Your task to perform on an android device: change the clock style Image 0: 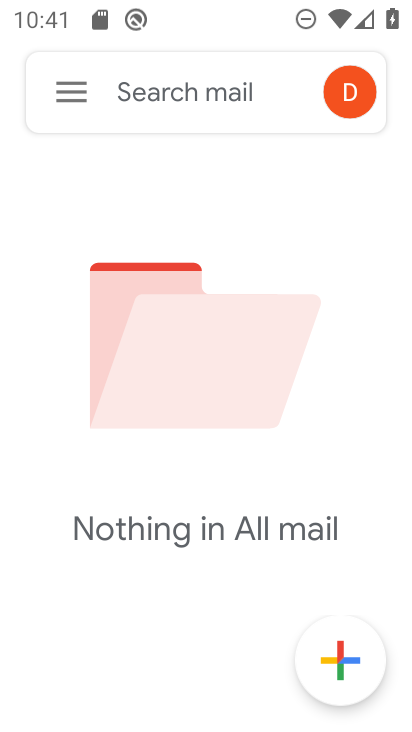
Step 0: press home button
Your task to perform on an android device: change the clock style Image 1: 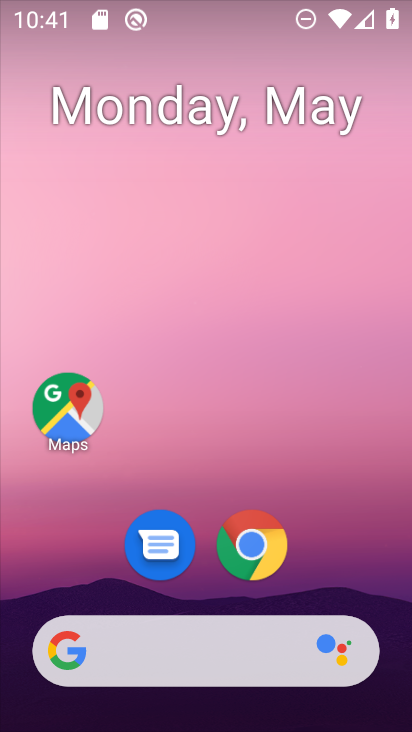
Step 1: drag from (368, 546) to (207, 27)
Your task to perform on an android device: change the clock style Image 2: 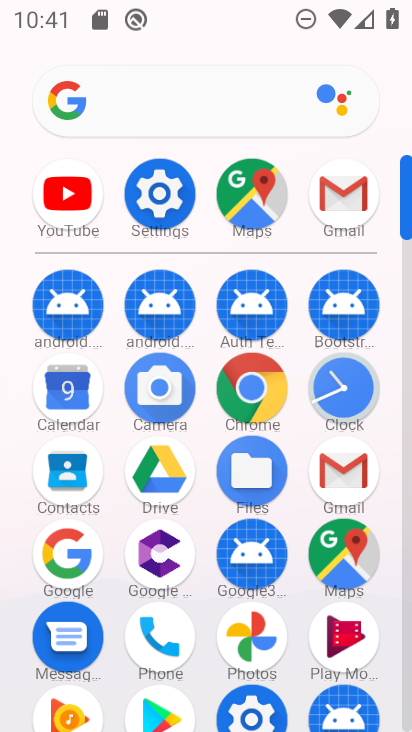
Step 2: click (349, 401)
Your task to perform on an android device: change the clock style Image 3: 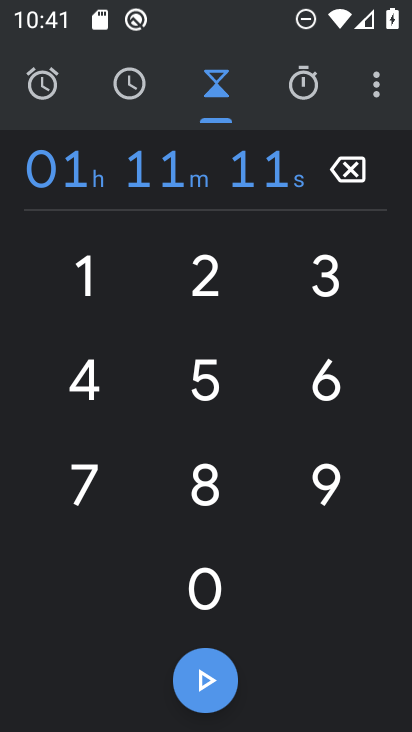
Step 3: click (373, 87)
Your task to perform on an android device: change the clock style Image 4: 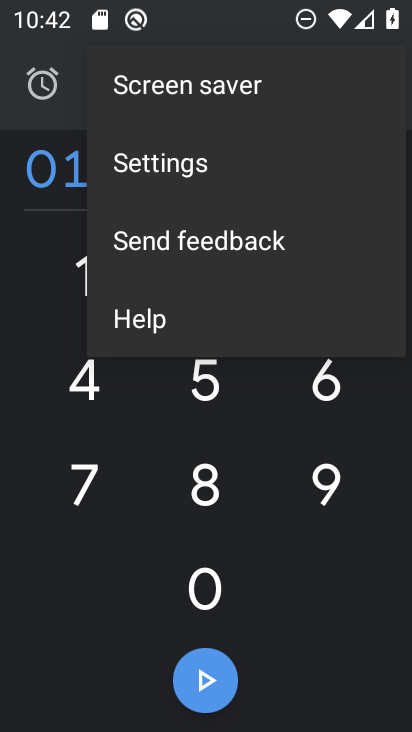
Step 4: click (155, 157)
Your task to perform on an android device: change the clock style Image 5: 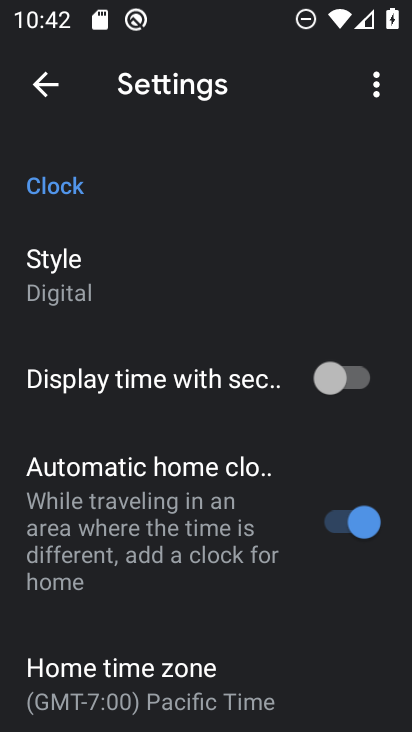
Step 5: click (53, 253)
Your task to perform on an android device: change the clock style Image 6: 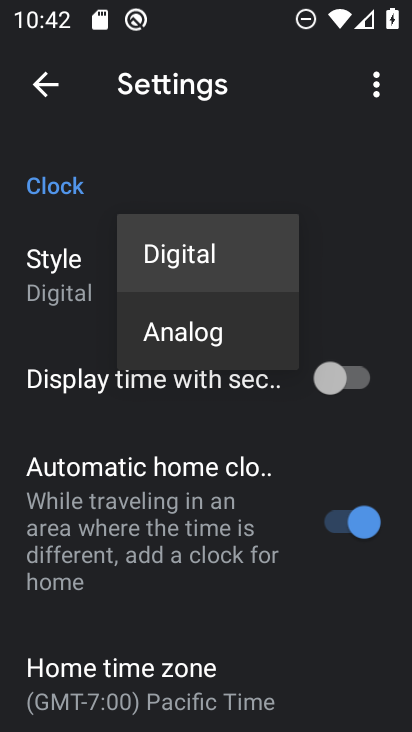
Step 6: click (164, 324)
Your task to perform on an android device: change the clock style Image 7: 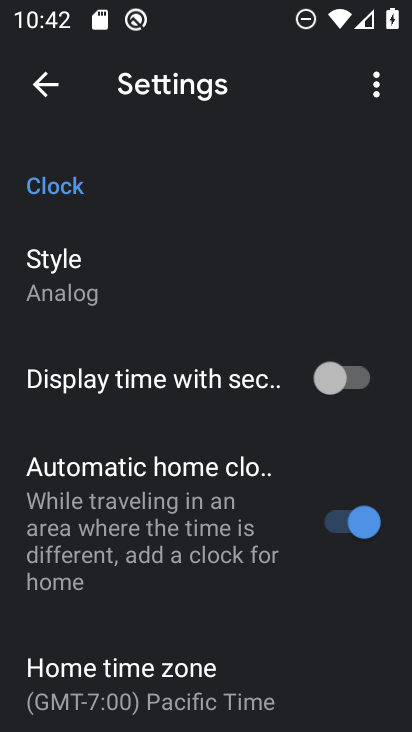
Step 7: task complete